Your task to perform on an android device: Go to privacy settings Image 0: 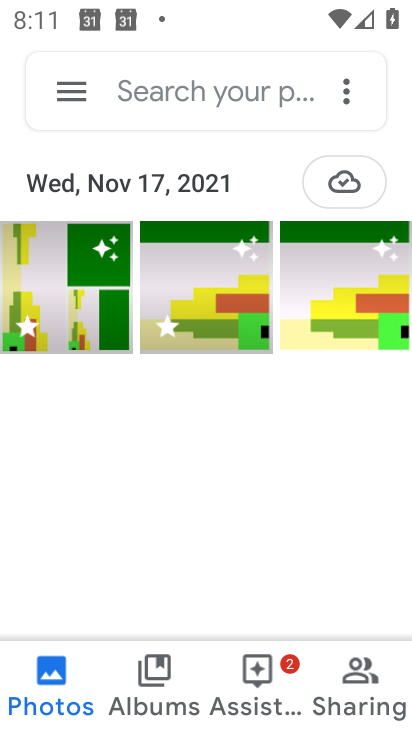
Step 0: press home button
Your task to perform on an android device: Go to privacy settings Image 1: 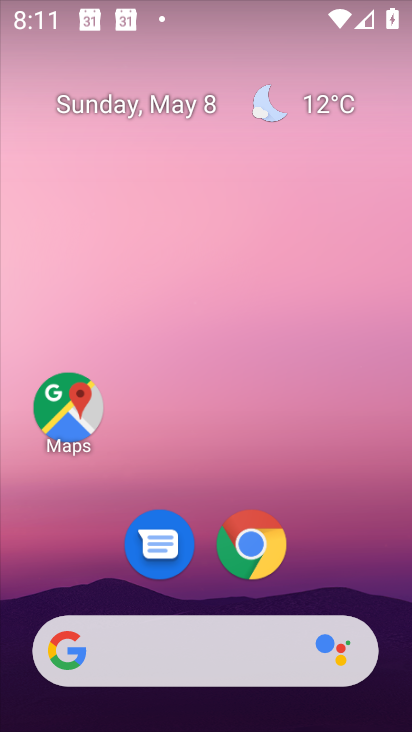
Step 1: drag from (330, 522) to (241, 77)
Your task to perform on an android device: Go to privacy settings Image 2: 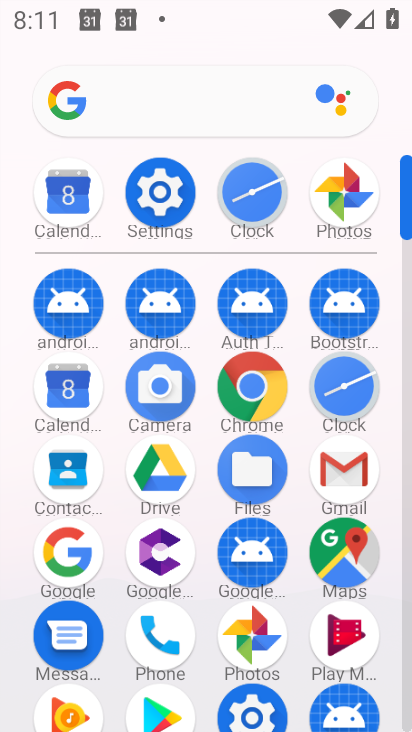
Step 2: click (160, 191)
Your task to perform on an android device: Go to privacy settings Image 3: 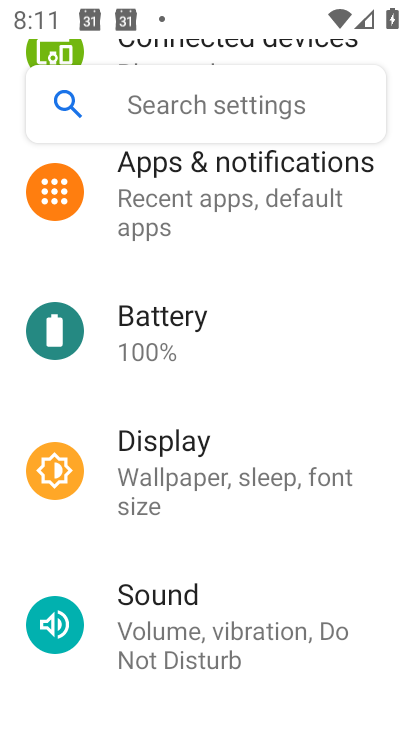
Step 3: drag from (242, 571) to (177, 280)
Your task to perform on an android device: Go to privacy settings Image 4: 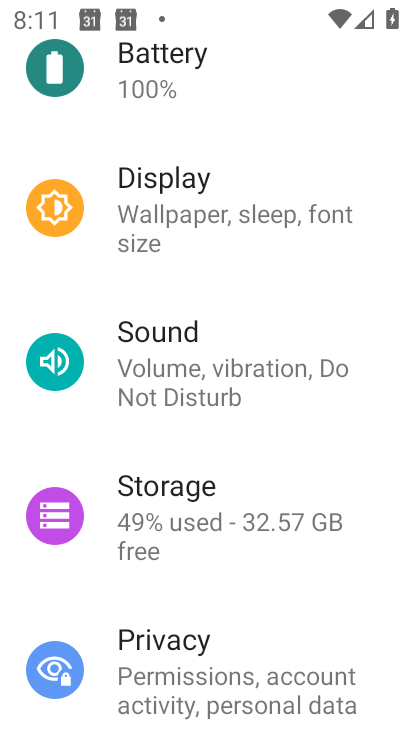
Step 4: click (162, 635)
Your task to perform on an android device: Go to privacy settings Image 5: 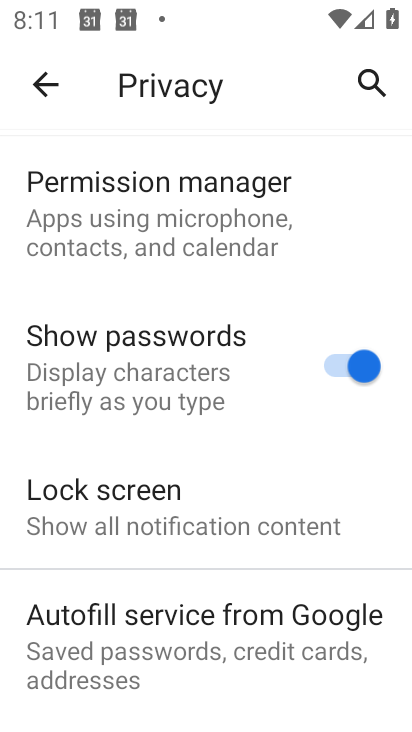
Step 5: task complete